Your task to perform on an android device: turn vacation reply on in the gmail app Image 0: 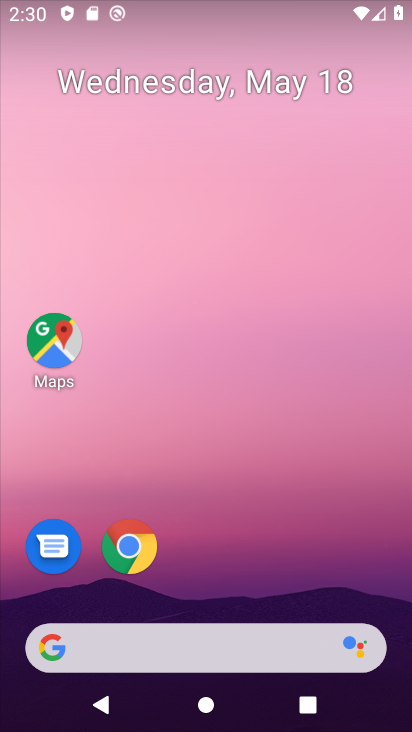
Step 0: drag from (221, 699) to (227, 180)
Your task to perform on an android device: turn vacation reply on in the gmail app Image 1: 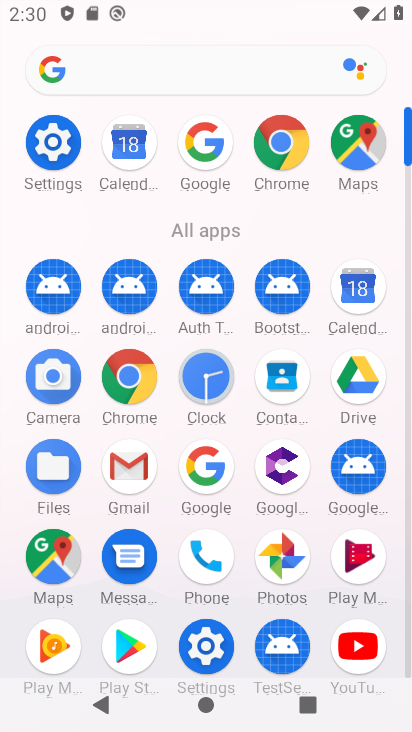
Step 1: click (131, 470)
Your task to perform on an android device: turn vacation reply on in the gmail app Image 2: 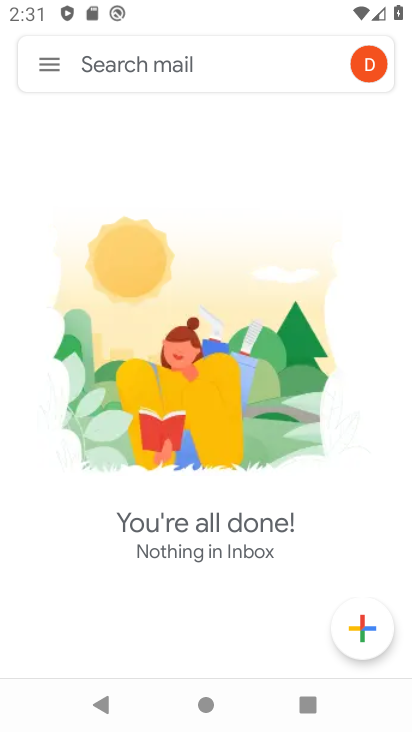
Step 2: click (47, 59)
Your task to perform on an android device: turn vacation reply on in the gmail app Image 3: 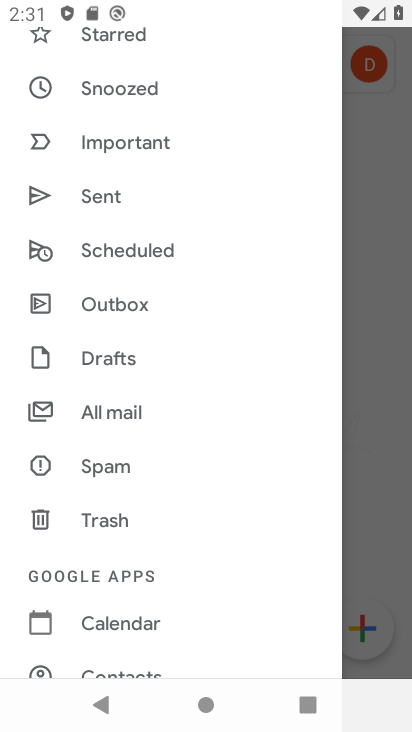
Step 3: drag from (165, 651) to (169, 253)
Your task to perform on an android device: turn vacation reply on in the gmail app Image 4: 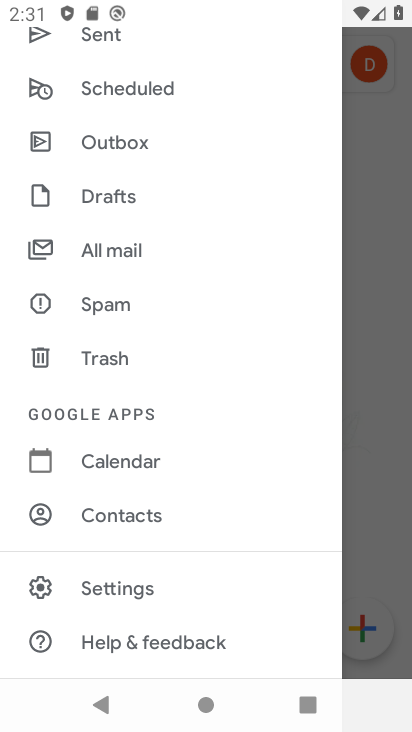
Step 4: click (114, 584)
Your task to perform on an android device: turn vacation reply on in the gmail app Image 5: 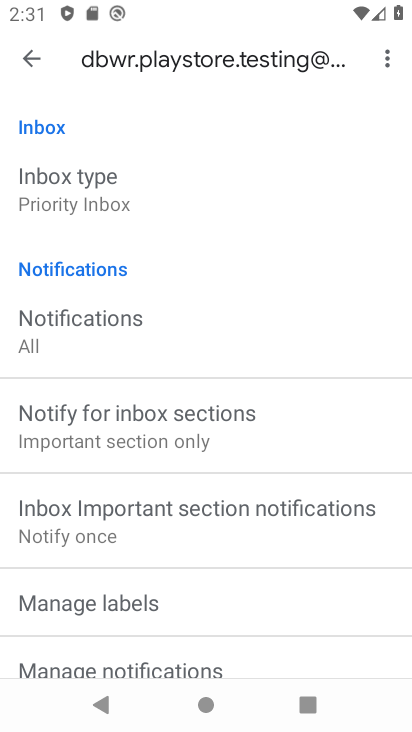
Step 5: drag from (159, 657) to (167, 255)
Your task to perform on an android device: turn vacation reply on in the gmail app Image 6: 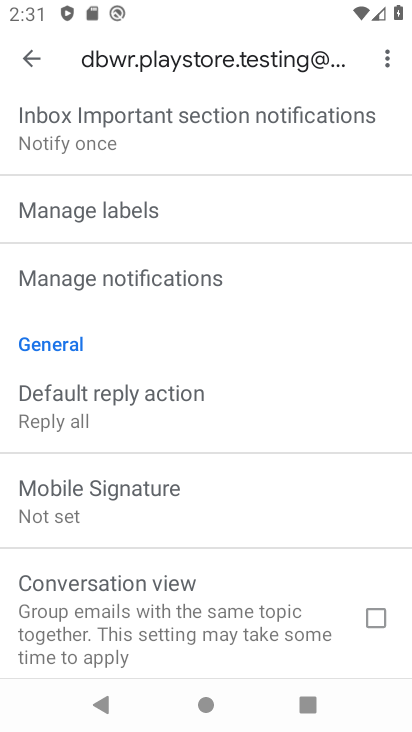
Step 6: drag from (194, 185) to (197, 607)
Your task to perform on an android device: turn vacation reply on in the gmail app Image 7: 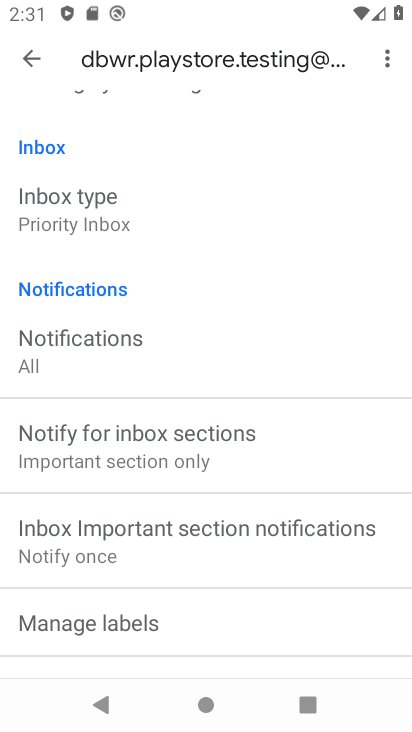
Step 7: drag from (183, 157) to (184, 583)
Your task to perform on an android device: turn vacation reply on in the gmail app Image 8: 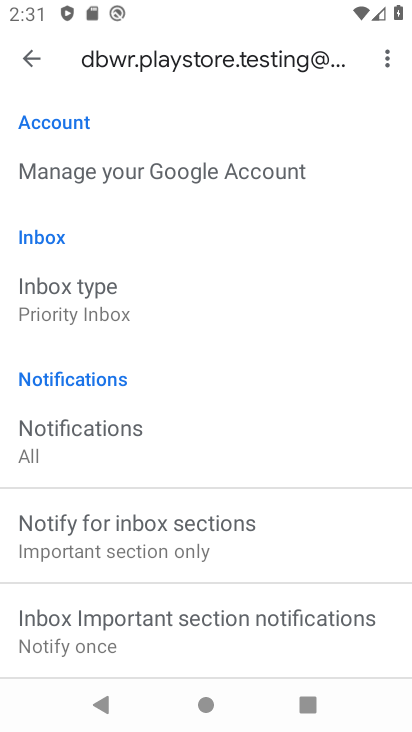
Step 8: drag from (123, 633) to (135, 392)
Your task to perform on an android device: turn vacation reply on in the gmail app Image 9: 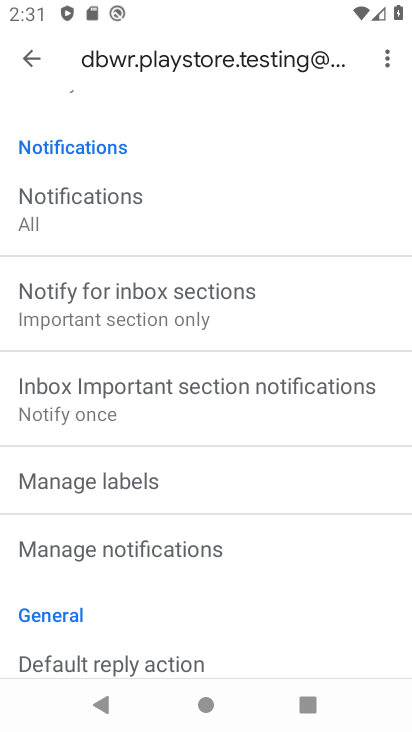
Step 9: drag from (174, 593) to (199, 242)
Your task to perform on an android device: turn vacation reply on in the gmail app Image 10: 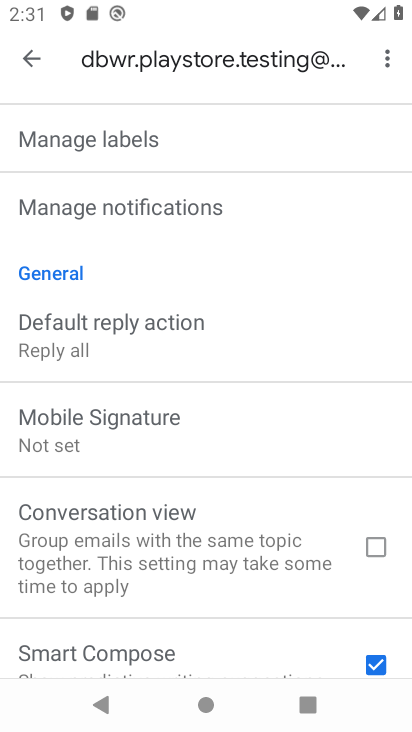
Step 10: drag from (144, 630) to (149, 299)
Your task to perform on an android device: turn vacation reply on in the gmail app Image 11: 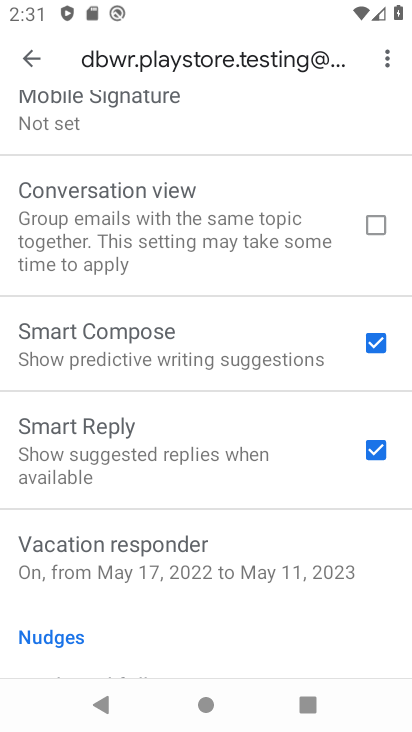
Step 11: drag from (122, 626) to (128, 426)
Your task to perform on an android device: turn vacation reply on in the gmail app Image 12: 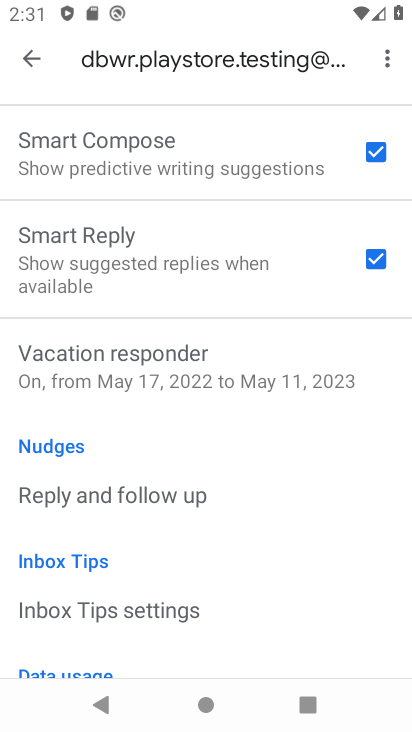
Step 12: click (142, 362)
Your task to perform on an android device: turn vacation reply on in the gmail app Image 13: 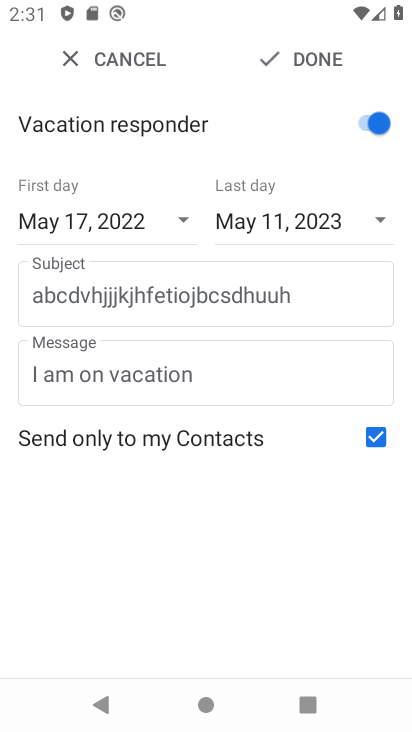
Step 13: task complete